Your task to perform on an android device: Open Chrome and go to the settings page Image 0: 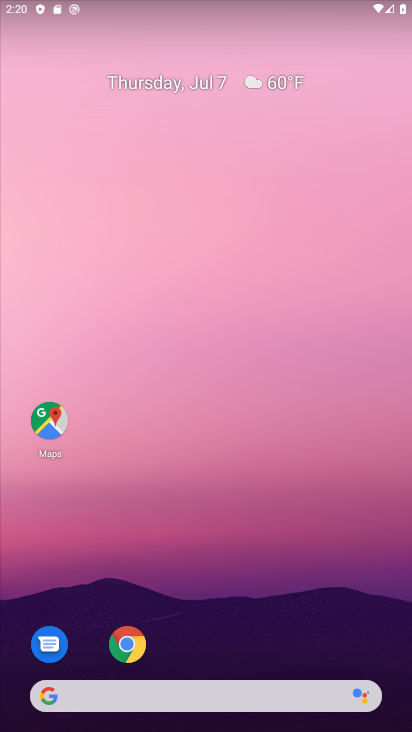
Step 0: drag from (227, 690) to (257, 94)
Your task to perform on an android device: Open Chrome and go to the settings page Image 1: 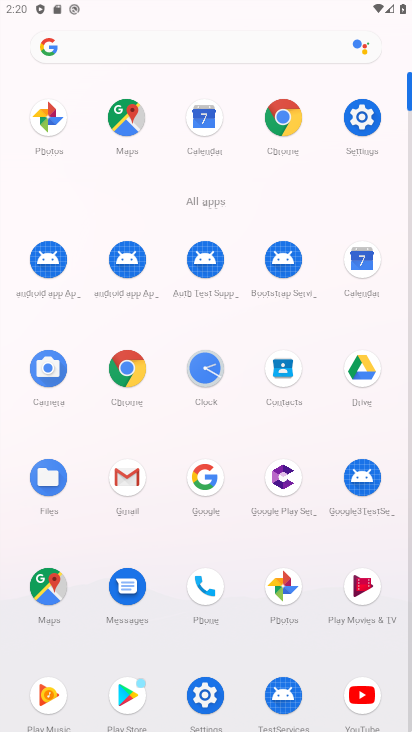
Step 1: click (277, 123)
Your task to perform on an android device: Open Chrome and go to the settings page Image 2: 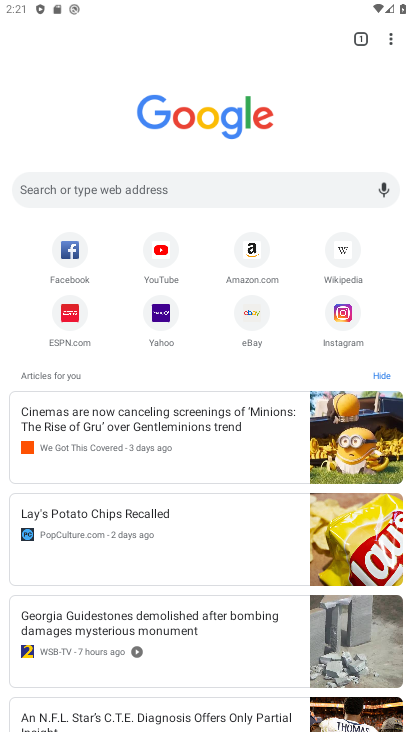
Step 2: task complete